Your task to perform on an android device: Open Reddit.com Image 0: 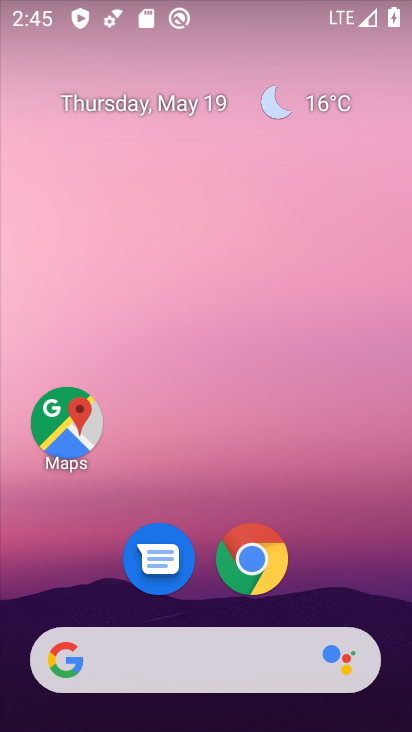
Step 0: click (244, 552)
Your task to perform on an android device: Open Reddit.com Image 1: 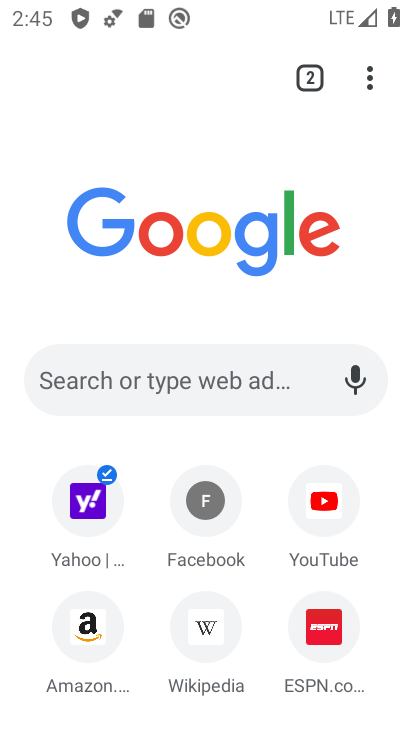
Step 1: click (144, 372)
Your task to perform on an android device: Open Reddit.com Image 2: 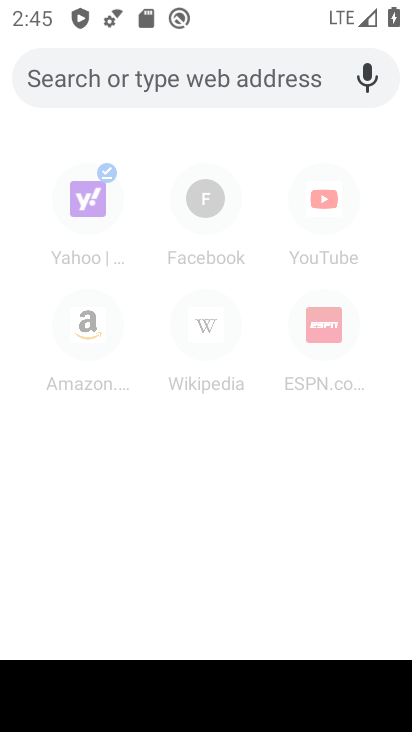
Step 2: type "Reddit.com"
Your task to perform on an android device: Open Reddit.com Image 3: 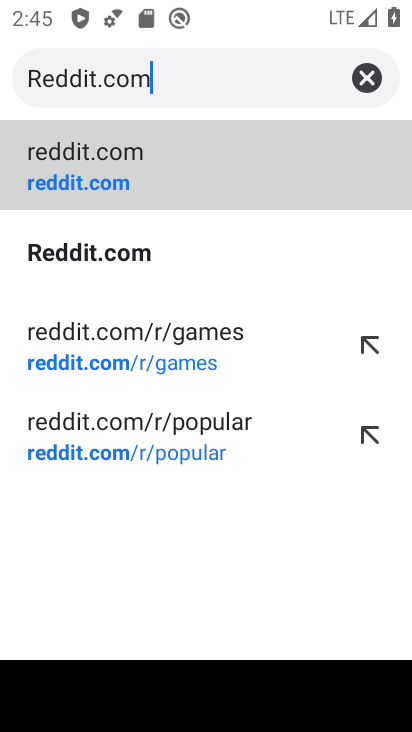
Step 3: click (164, 191)
Your task to perform on an android device: Open Reddit.com Image 4: 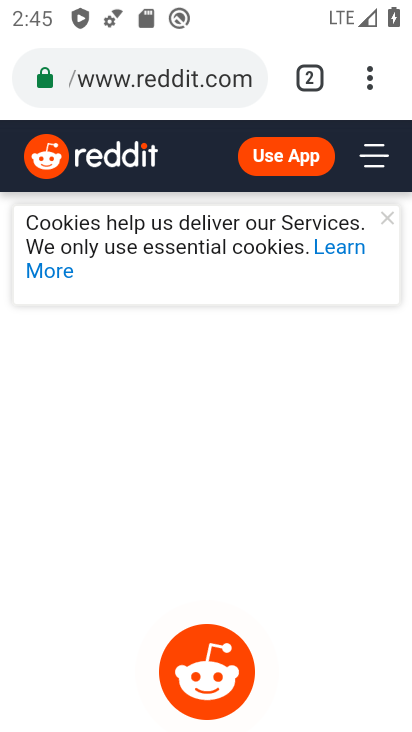
Step 4: task complete